Your task to perform on an android device: check data usage Image 0: 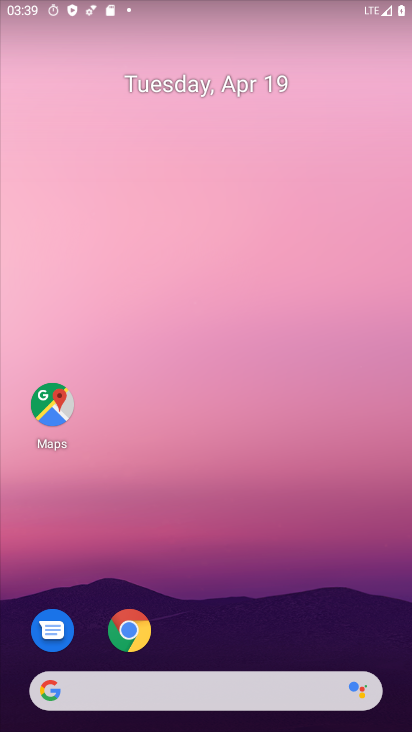
Step 0: drag from (267, 581) to (278, 75)
Your task to perform on an android device: check data usage Image 1: 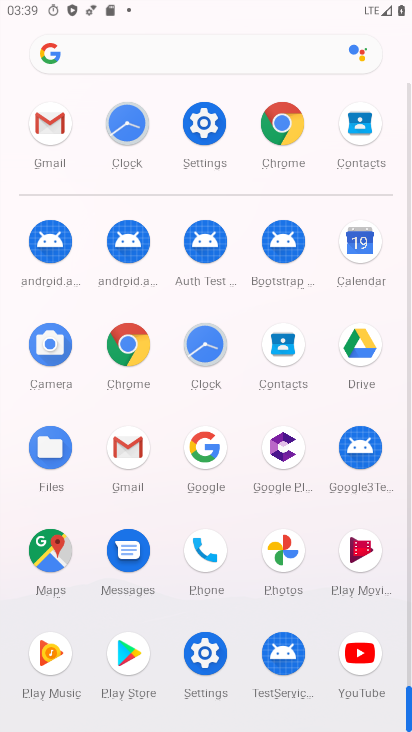
Step 1: click (207, 140)
Your task to perform on an android device: check data usage Image 2: 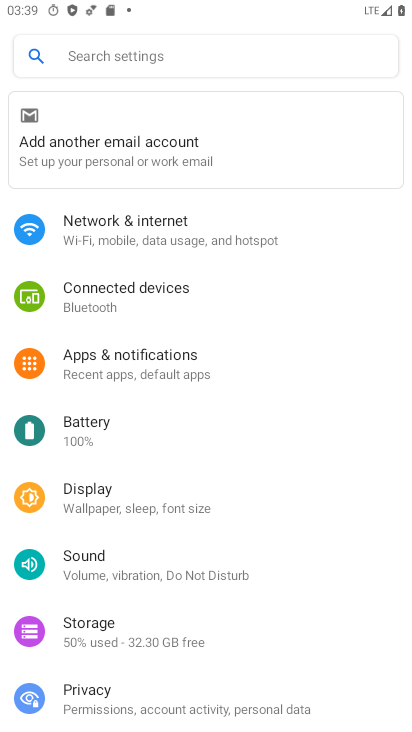
Step 2: click (227, 228)
Your task to perform on an android device: check data usage Image 3: 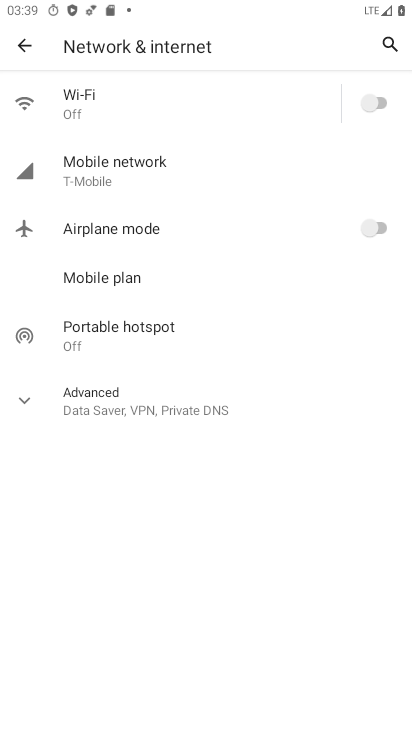
Step 3: click (129, 169)
Your task to perform on an android device: check data usage Image 4: 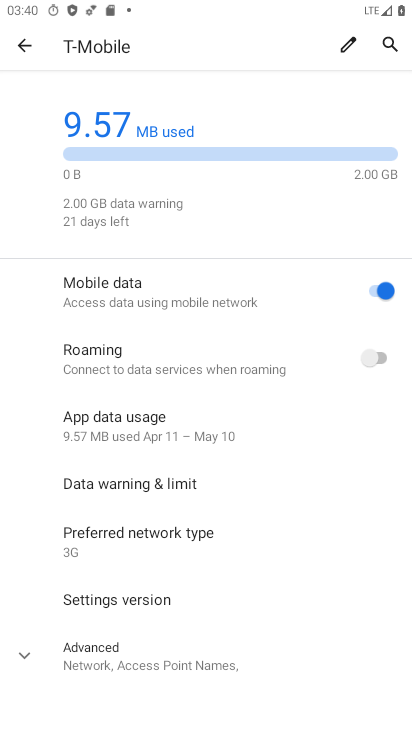
Step 4: task complete